Your task to perform on an android device: clear all cookies in the chrome app Image 0: 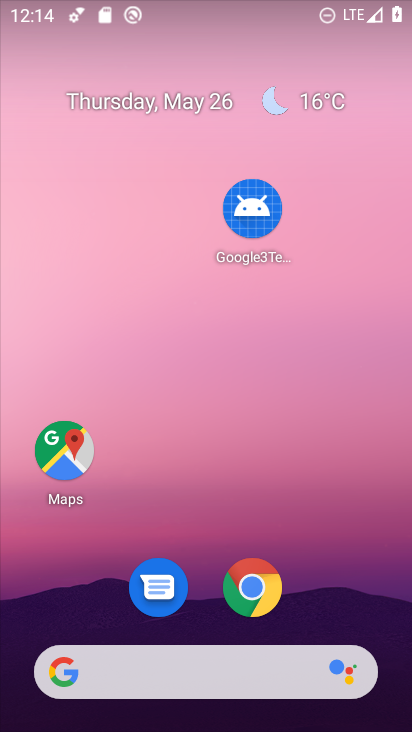
Step 0: drag from (231, 659) to (282, 24)
Your task to perform on an android device: clear all cookies in the chrome app Image 1: 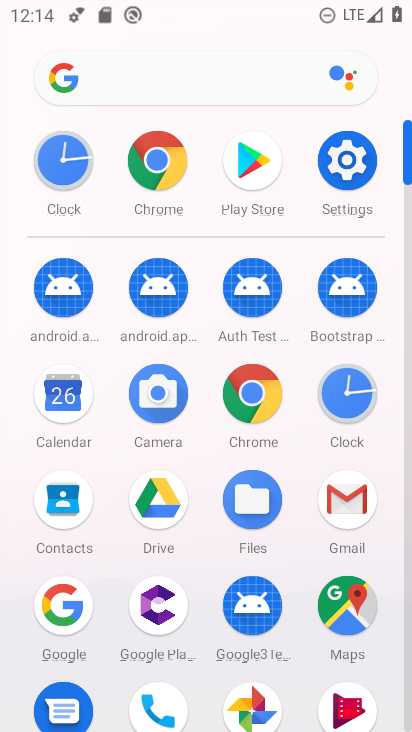
Step 1: click (150, 162)
Your task to perform on an android device: clear all cookies in the chrome app Image 2: 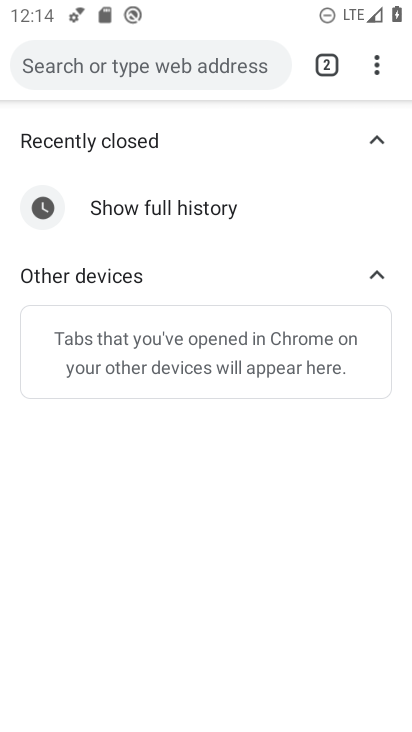
Step 2: drag from (375, 64) to (162, 539)
Your task to perform on an android device: clear all cookies in the chrome app Image 3: 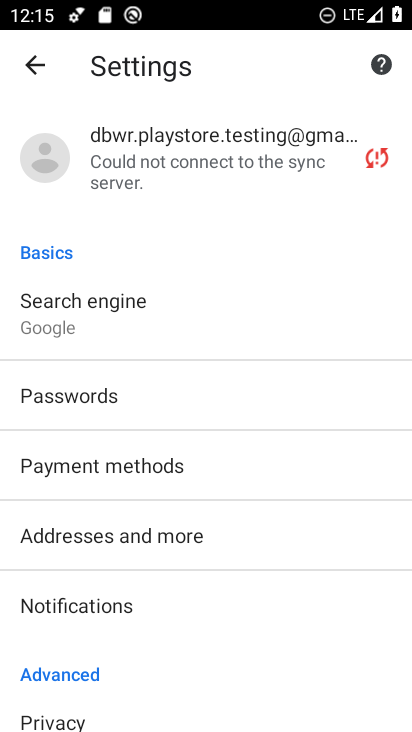
Step 3: drag from (171, 644) to (239, 154)
Your task to perform on an android device: clear all cookies in the chrome app Image 4: 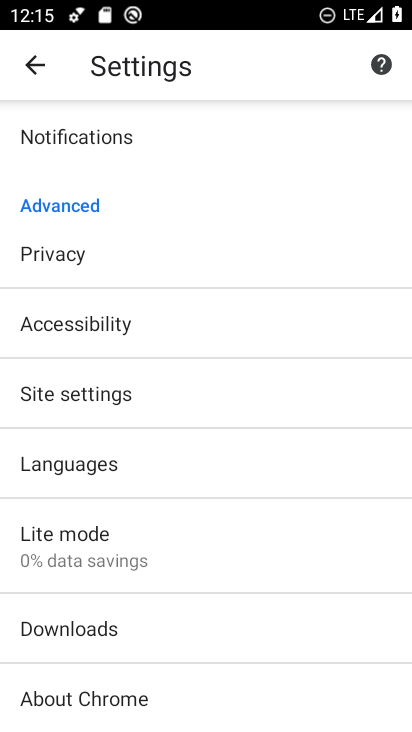
Step 4: click (81, 264)
Your task to perform on an android device: clear all cookies in the chrome app Image 5: 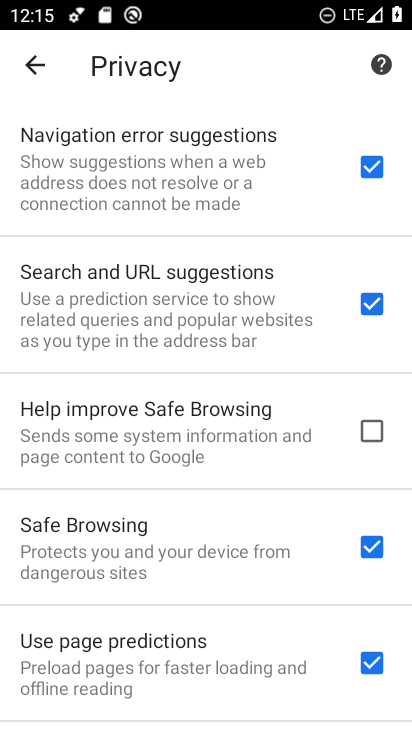
Step 5: drag from (180, 641) to (252, 79)
Your task to perform on an android device: clear all cookies in the chrome app Image 6: 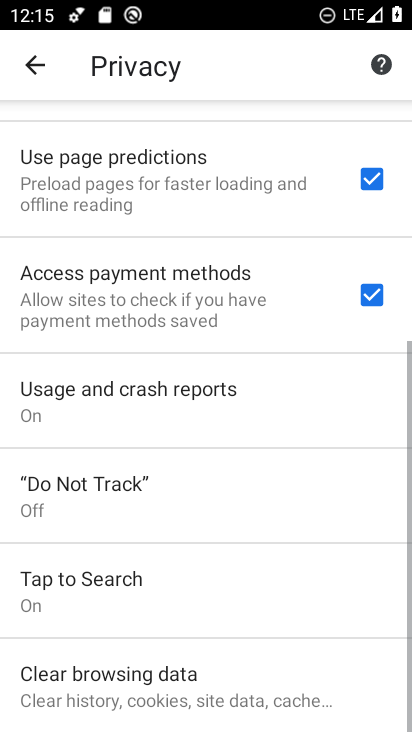
Step 6: click (159, 708)
Your task to perform on an android device: clear all cookies in the chrome app Image 7: 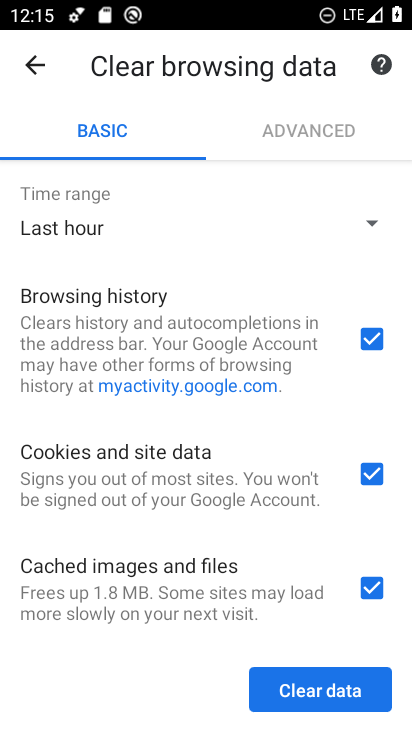
Step 7: click (366, 324)
Your task to perform on an android device: clear all cookies in the chrome app Image 8: 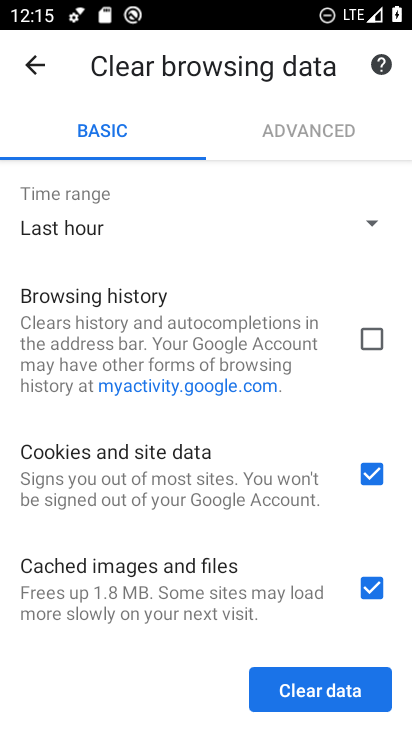
Step 8: click (374, 577)
Your task to perform on an android device: clear all cookies in the chrome app Image 9: 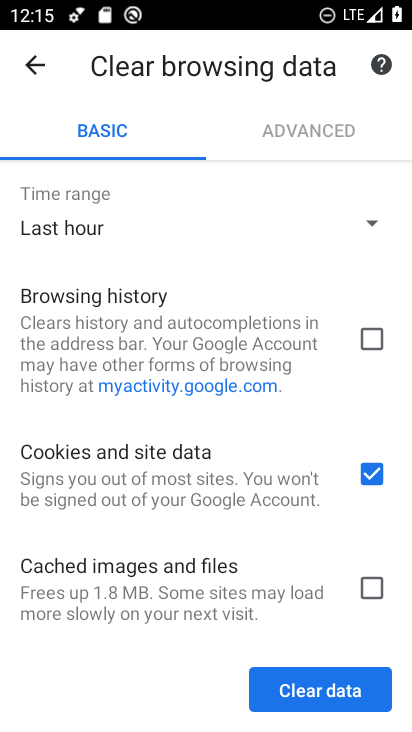
Step 9: click (311, 676)
Your task to perform on an android device: clear all cookies in the chrome app Image 10: 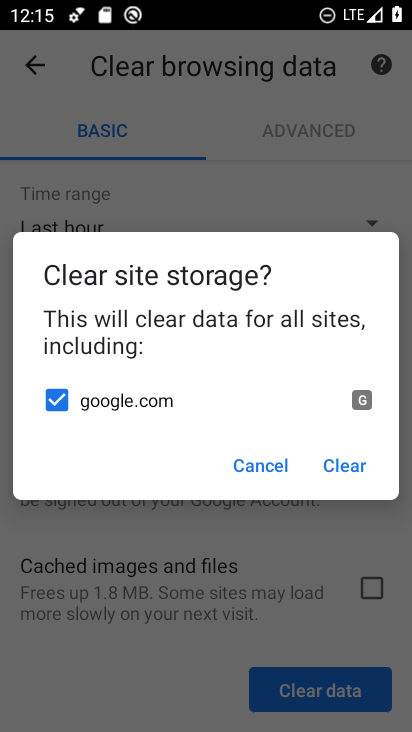
Step 10: click (355, 464)
Your task to perform on an android device: clear all cookies in the chrome app Image 11: 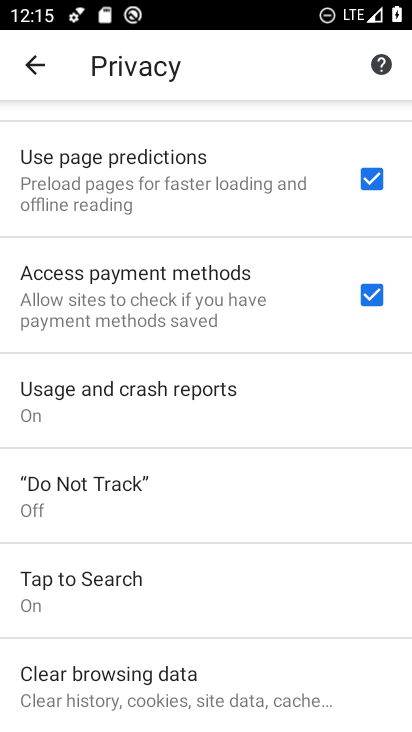
Step 11: task complete